Your task to perform on an android device: Show me popular games on the Play Store Image 0: 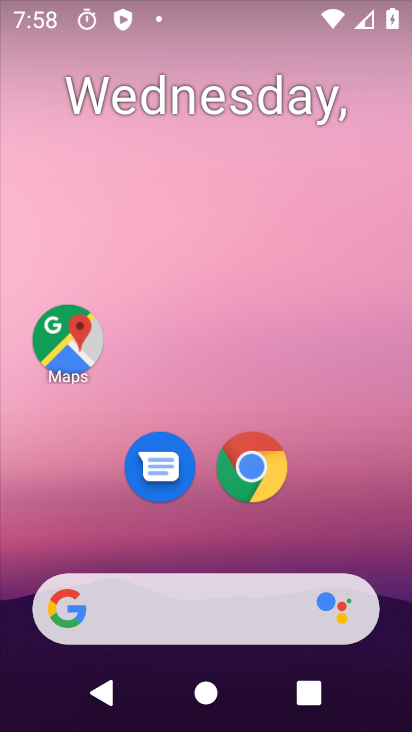
Step 0: drag from (368, 553) to (377, 164)
Your task to perform on an android device: Show me popular games on the Play Store Image 1: 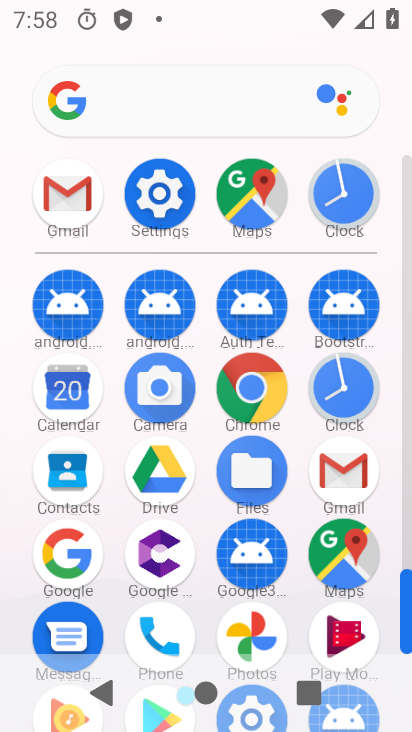
Step 1: drag from (411, 545) to (410, 393)
Your task to perform on an android device: Show me popular games on the Play Store Image 2: 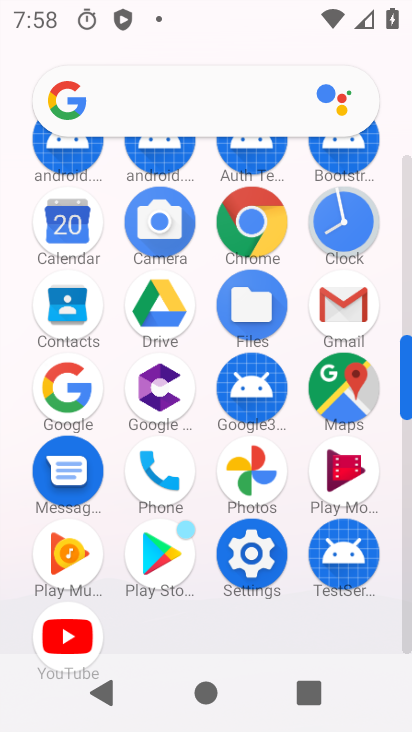
Step 2: click (159, 556)
Your task to perform on an android device: Show me popular games on the Play Store Image 3: 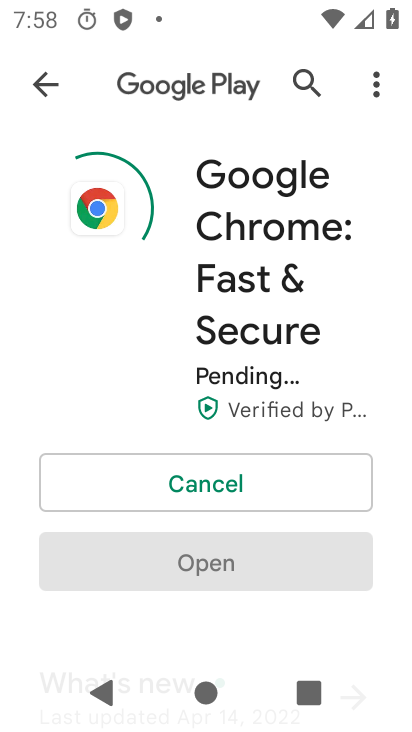
Step 3: click (53, 79)
Your task to perform on an android device: Show me popular games on the Play Store Image 4: 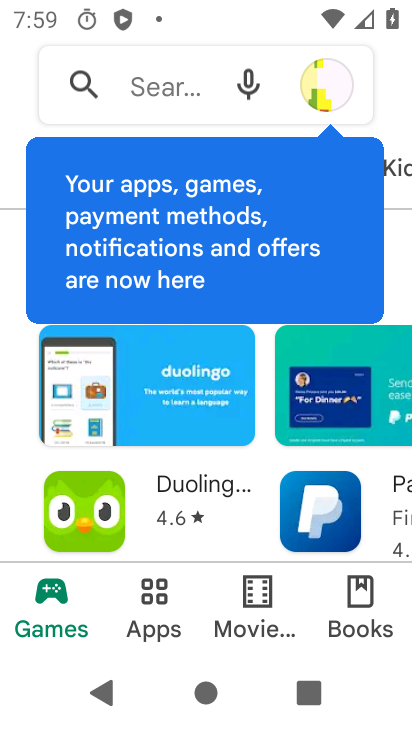
Step 4: click (232, 85)
Your task to perform on an android device: Show me popular games on the Play Store Image 5: 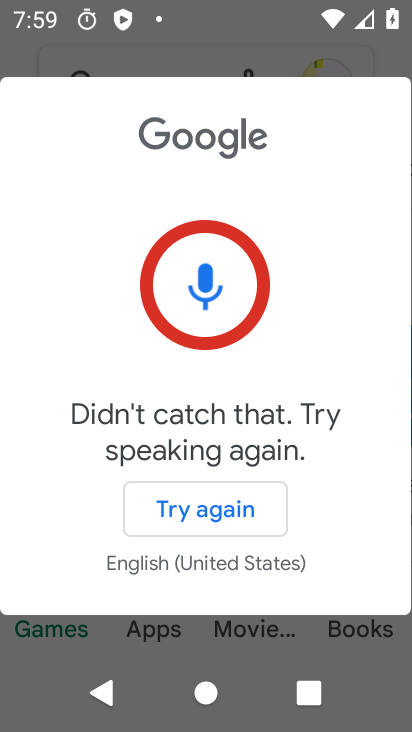
Step 5: press back button
Your task to perform on an android device: Show me popular games on the Play Store Image 6: 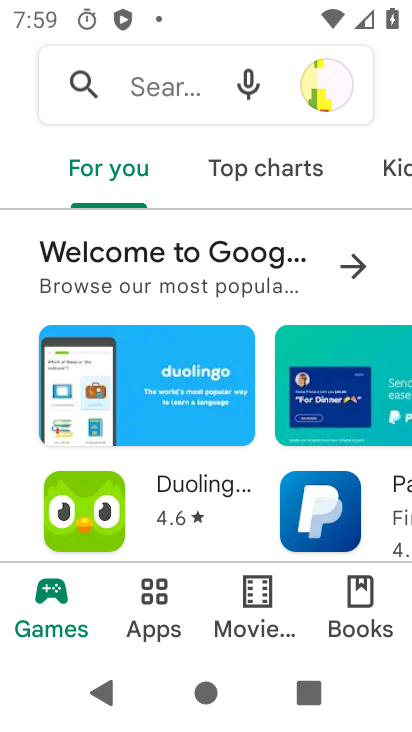
Step 6: click (171, 81)
Your task to perform on an android device: Show me popular games on the Play Store Image 7: 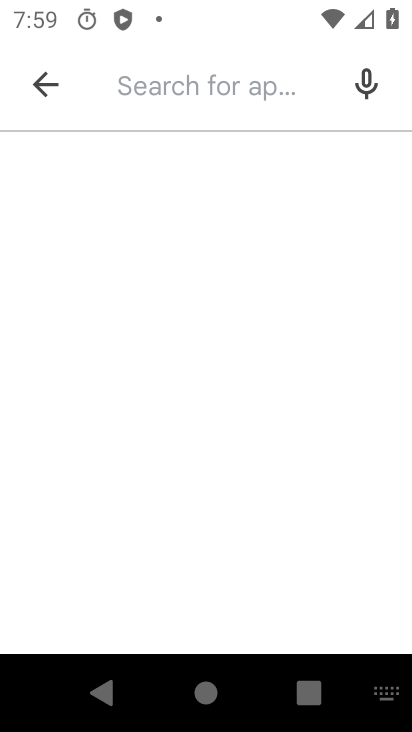
Step 7: type "popular games on the Play Store"
Your task to perform on an android device: Show me popular games on the Play Store Image 8: 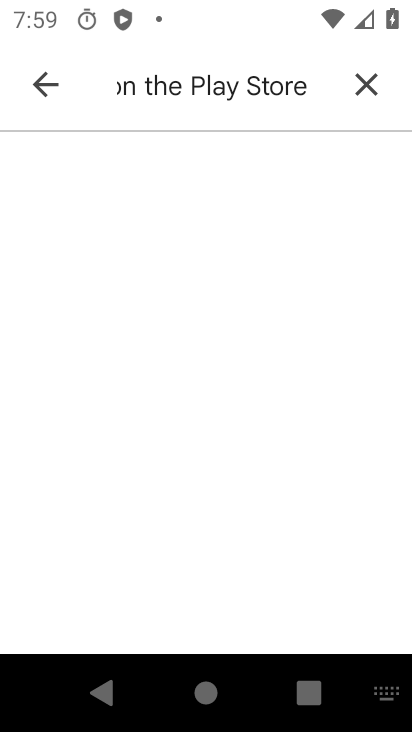
Step 8: click (316, 91)
Your task to perform on an android device: Show me popular games on the Play Store Image 9: 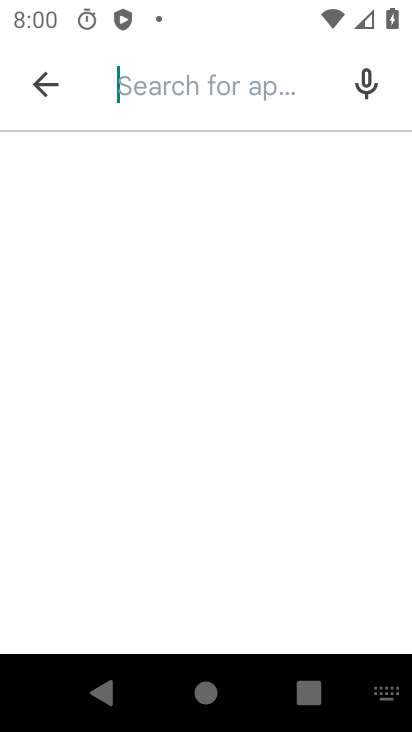
Step 9: click (197, 90)
Your task to perform on an android device: Show me popular games on the Play Store Image 10: 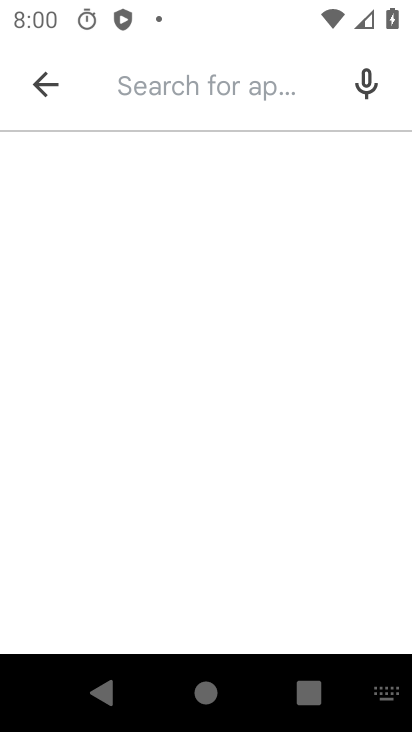
Step 10: type "popular games"
Your task to perform on an android device: Show me popular games on the Play Store Image 11: 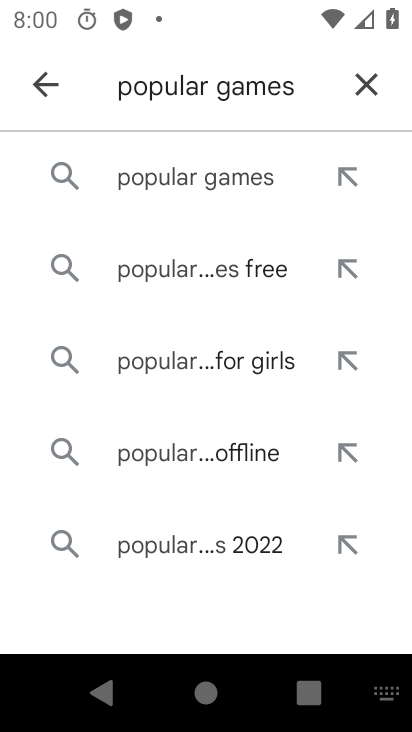
Step 11: click (194, 163)
Your task to perform on an android device: Show me popular games on the Play Store Image 12: 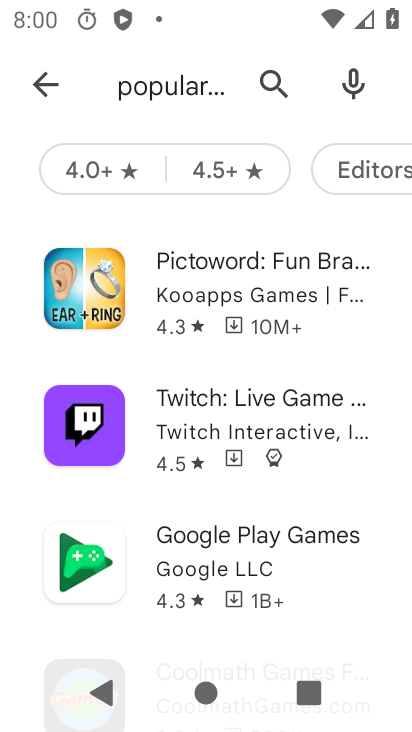
Step 12: task complete